Your task to perform on an android device: Find coffee shops on Maps Image 0: 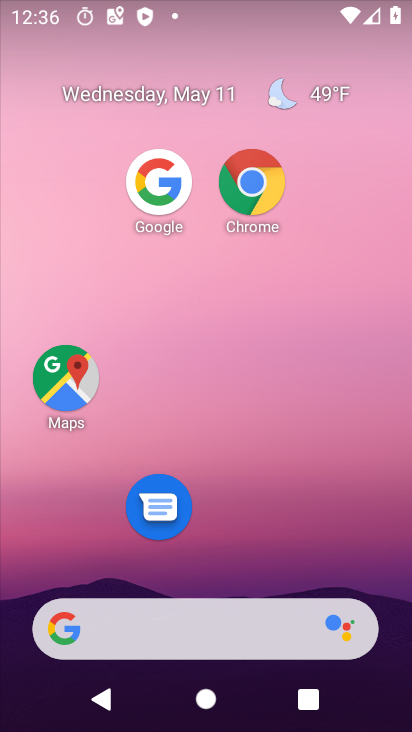
Step 0: click (60, 380)
Your task to perform on an android device: Find coffee shops on Maps Image 1: 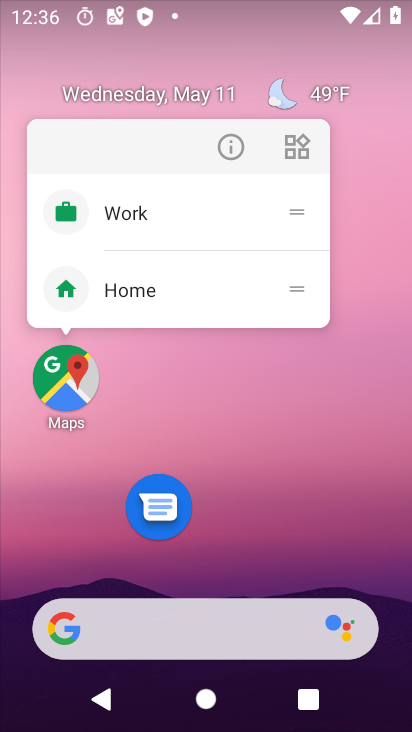
Step 1: click (67, 385)
Your task to perform on an android device: Find coffee shops on Maps Image 2: 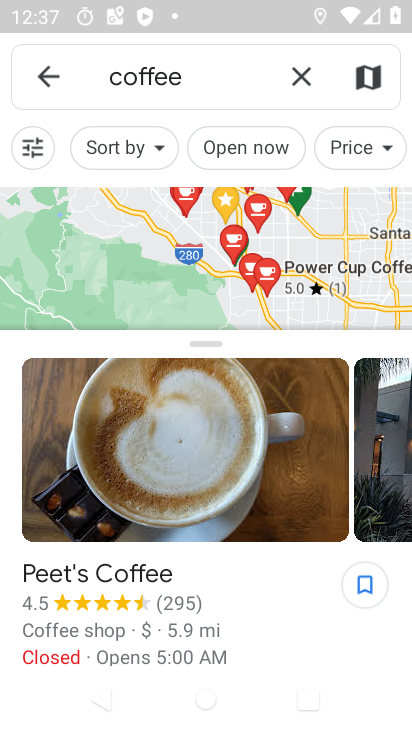
Step 2: task complete